Your task to perform on an android device: see sites visited before in the chrome app Image 0: 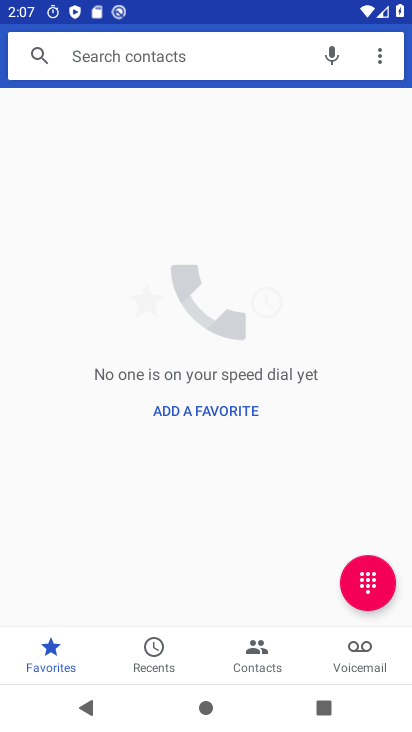
Step 0: press home button
Your task to perform on an android device: see sites visited before in the chrome app Image 1: 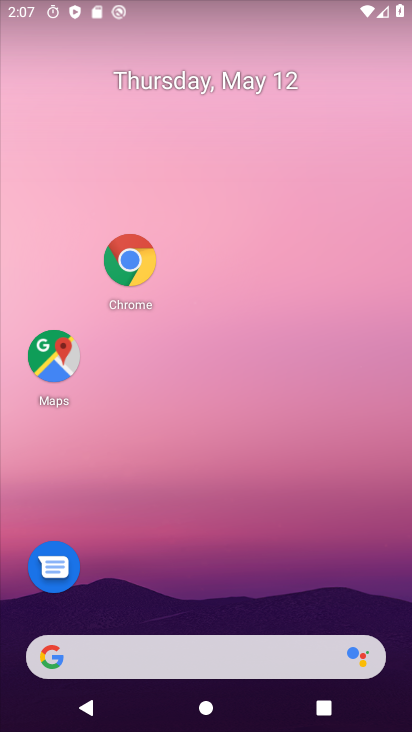
Step 1: click (113, 261)
Your task to perform on an android device: see sites visited before in the chrome app Image 2: 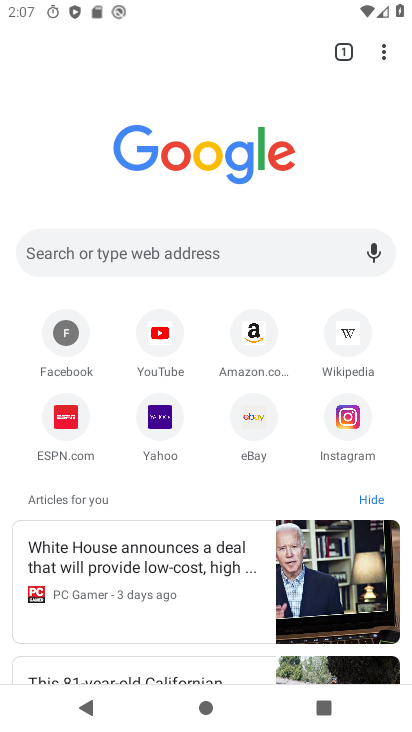
Step 2: task complete